Your task to perform on an android device: Search for vegetarian restaurants on Maps Image 0: 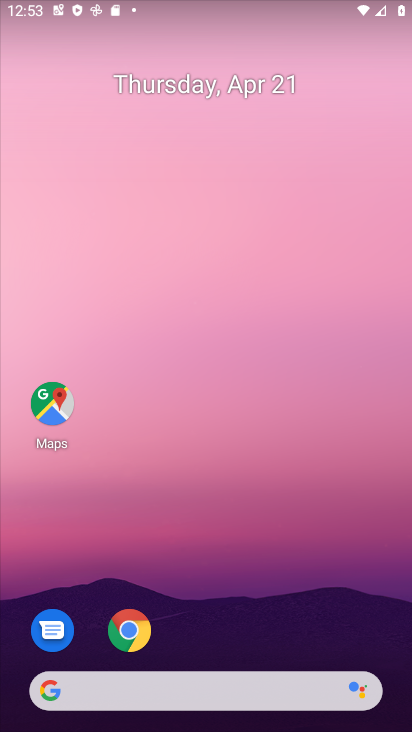
Step 0: click (46, 406)
Your task to perform on an android device: Search for vegetarian restaurants on Maps Image 1: 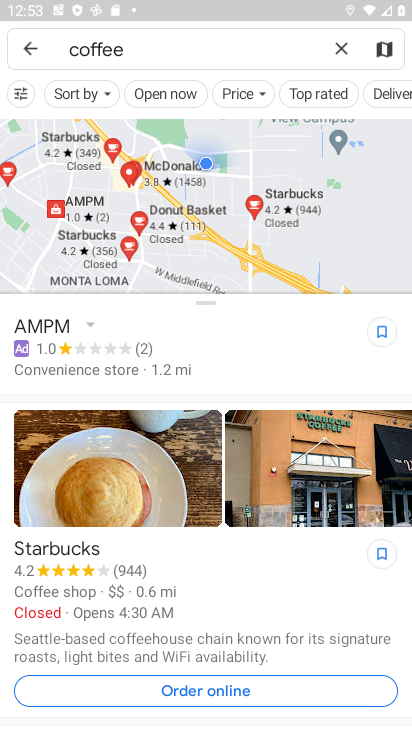
Step 1: click (348, 49)
Your task to perform on an android device: Search for vegetarian restaurants on Maps Image 2: 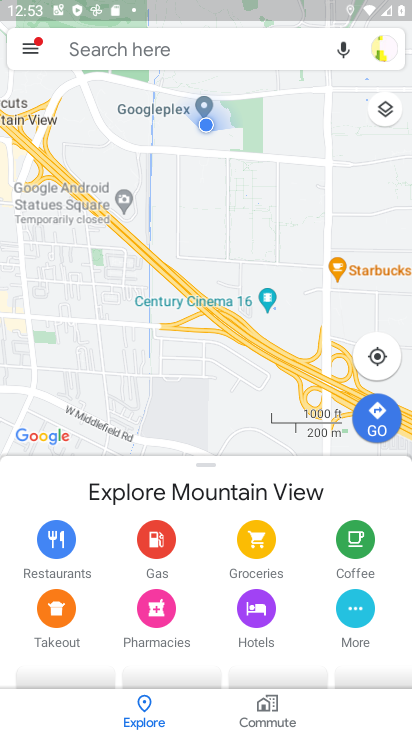
Step 2: click (317, 49)
Your task to perform on an android device: Search for vegetarian restaurants on Maps Image 3: 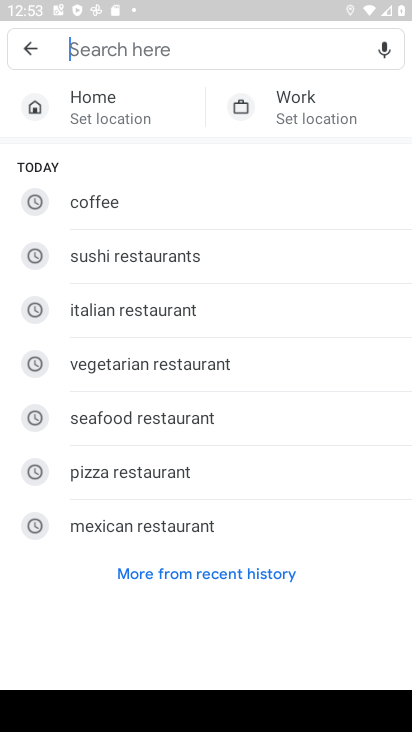
Step 3: click (259, 358)
Your task to perform on an android device: Search for vegetarian restaurants on Maps Image 4: 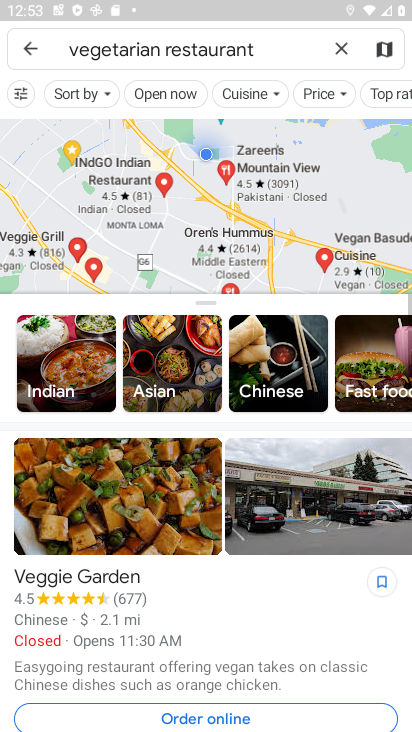
Step 4: task complete